Your task to perform on an android device: Show me the alarms in the clock app Image 0: 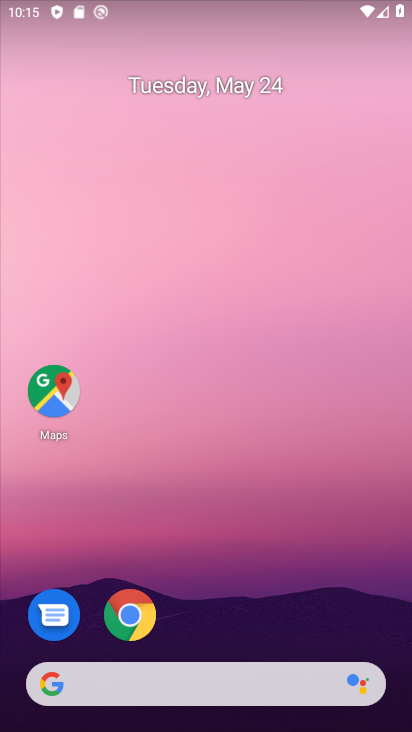
Step 0: drag from (239, 477) to (239, 150)
Your task to perform on an android device: Show me the alarms in the clock app Image 1: 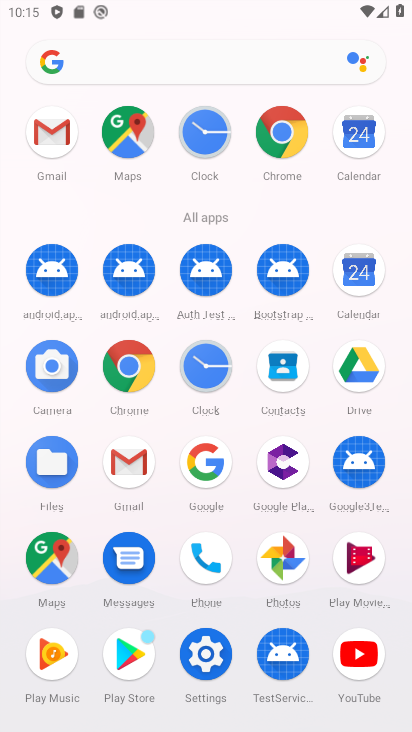
Step 1: click (213, 143)
Your task to perform on an android device: Show me the alarms in the clock app Image 2: 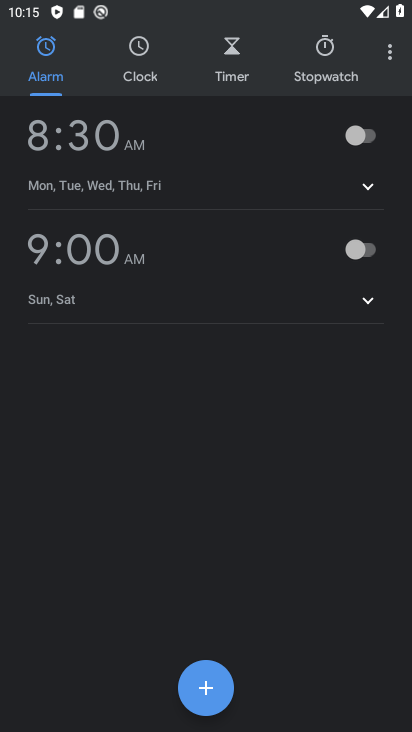
Step 2: task complete